Your task to perform on an android device: What's the weather going to be tomorrow? Image 0: 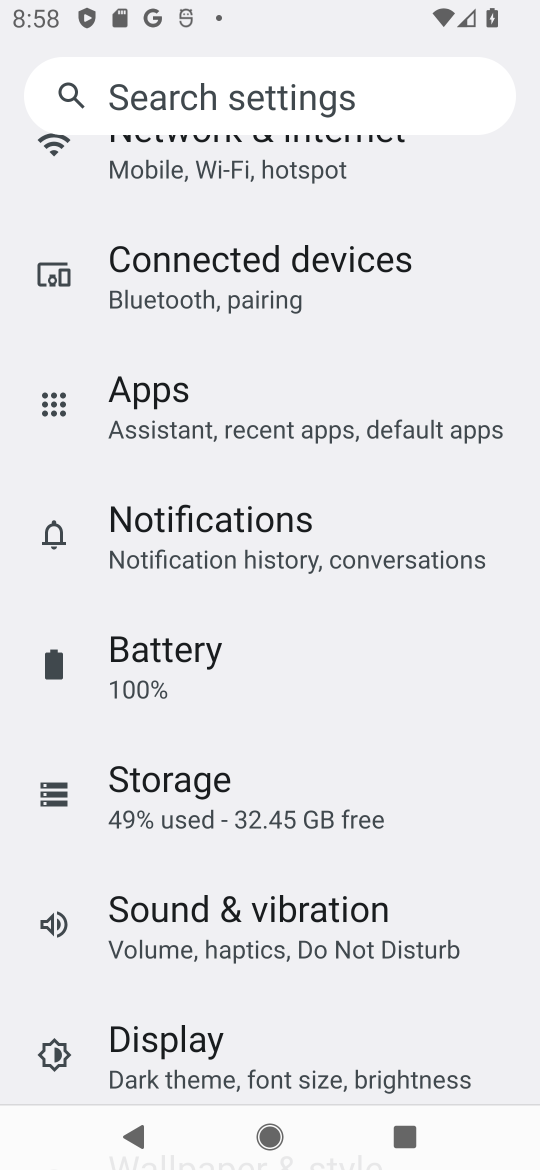
Step 0: press home button
Your task to perform on an android device: What's the weather going to be tomorrow? Image 1: 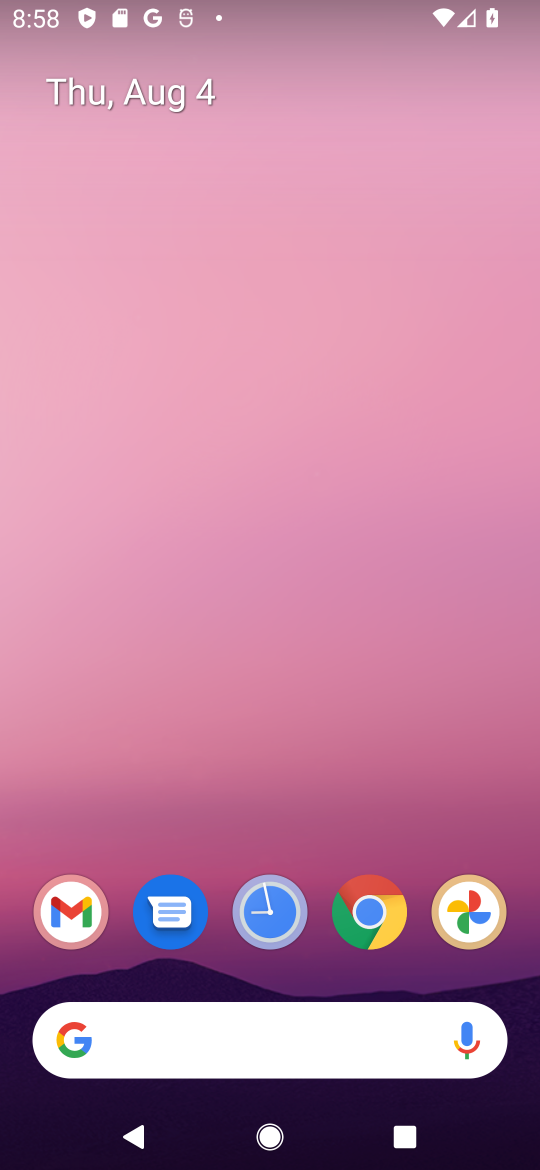
Step 1: drag from (432, 836) to (319, 123)
Your task to perform on an android device: What's the weather going to be tomorrow? Image 2: 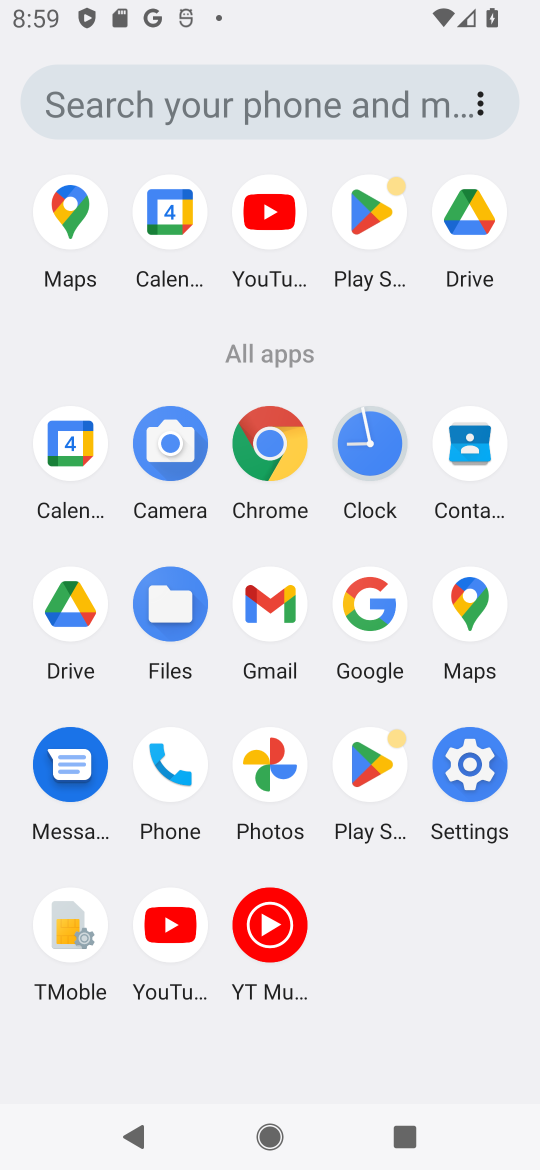
Step 2: click (280, 441)
Your task to perform on an android device: What's the weather going to be tomorrow? Image 3: 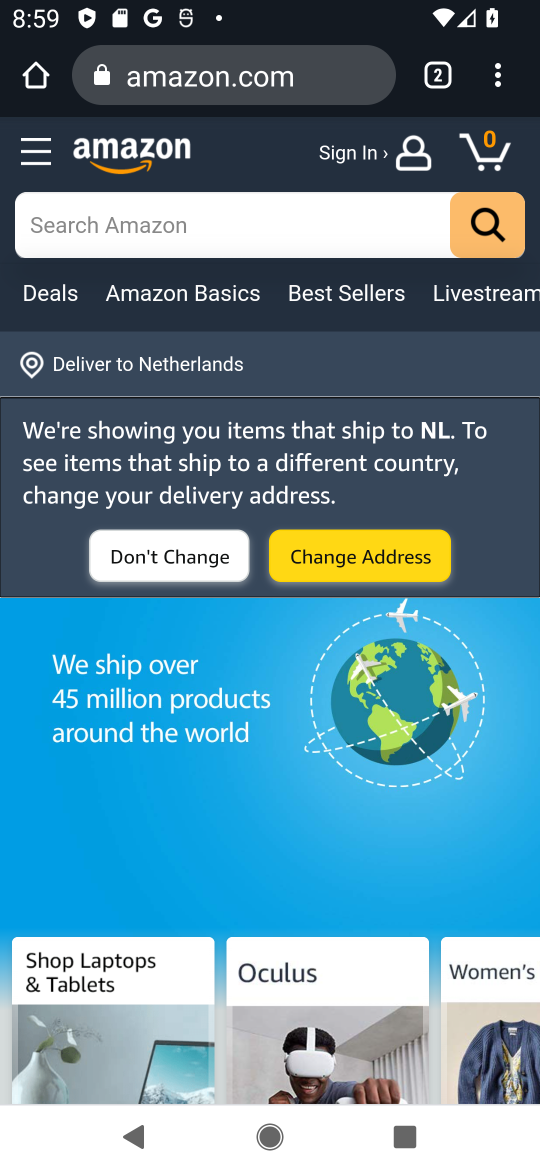
Step 3: click (235, 62)
Your task to perform on an android device: What's the weather going to be tomorrow? Image 4: 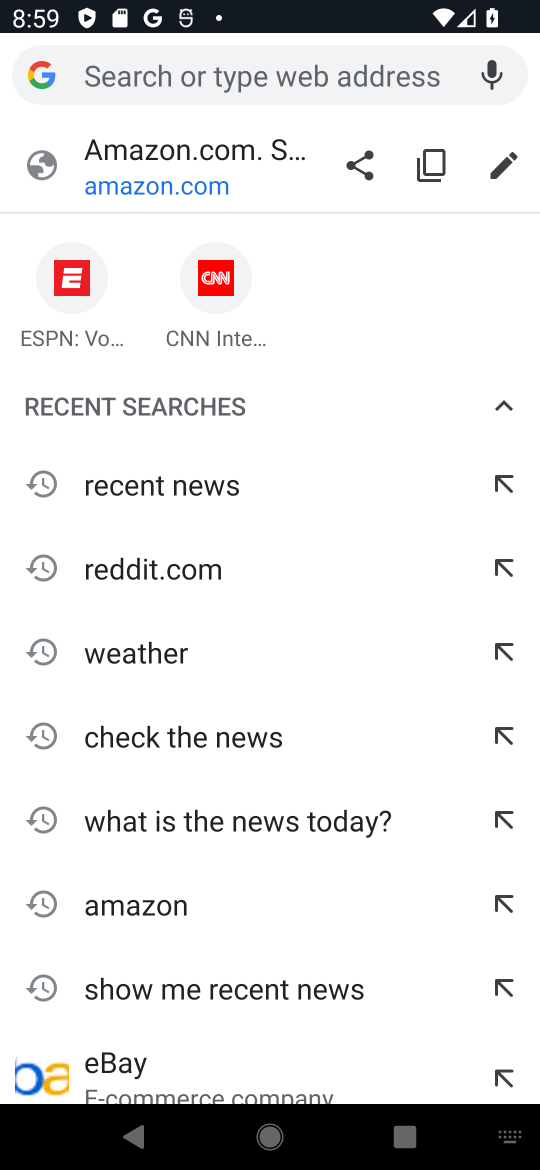
Step 4: type "What's the weather going to be tomorrow?"
Your task to perform on an android device: What's the weather going to be tomorrow? Image 5: 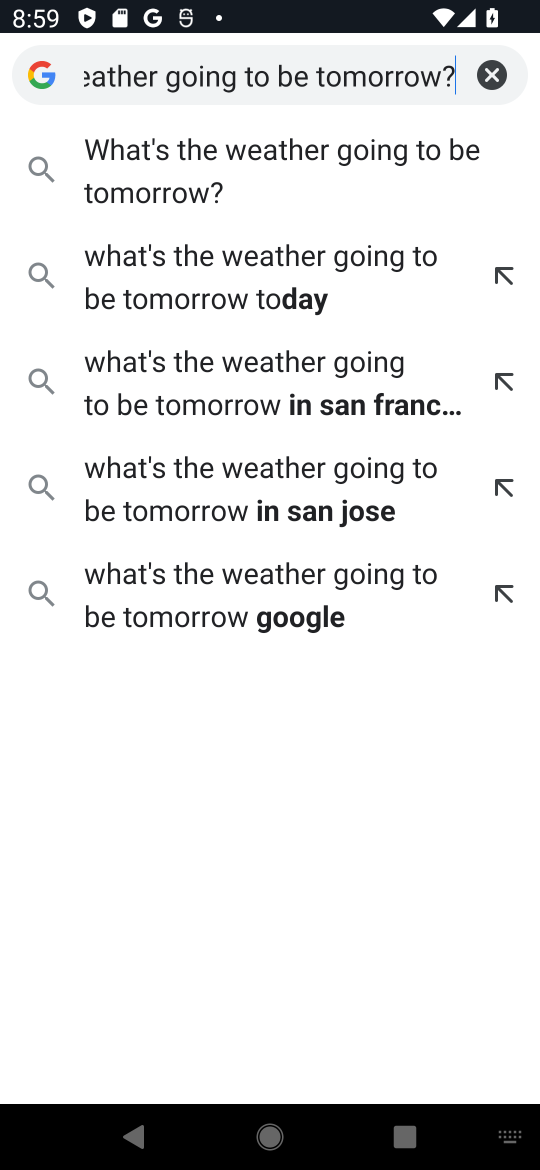
Step 5: click (426, 167)
Your task to perform on an android device: What's the weather going to be tomorrow? Image 6: 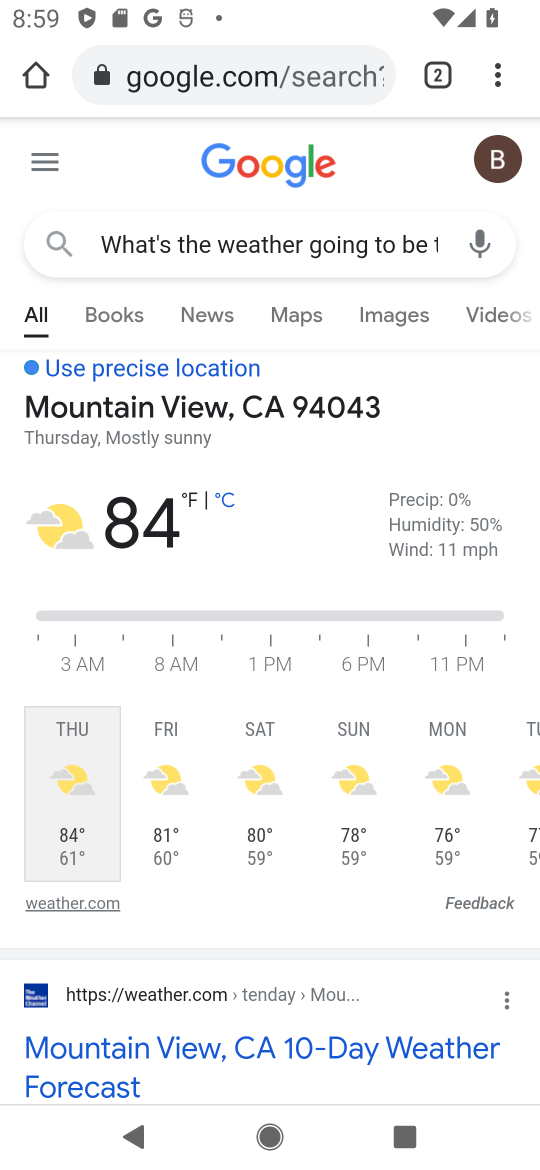
Step 6: task complete